Your task to perform on an android device: Go to privacy settings Image 0: 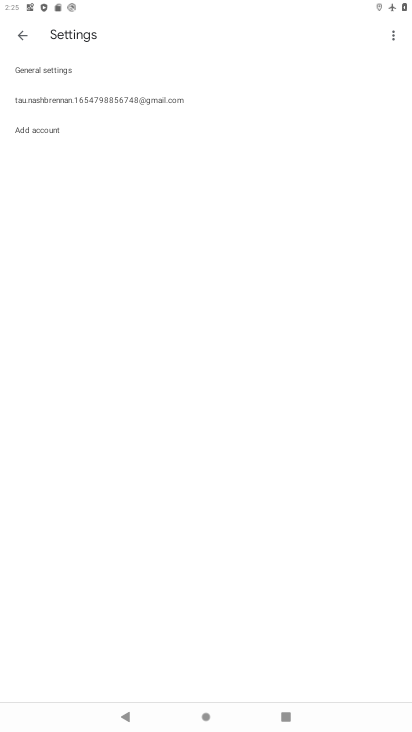
Step 0: press home button
Your task to perform on an android device: Go to privacy settings Image 1: 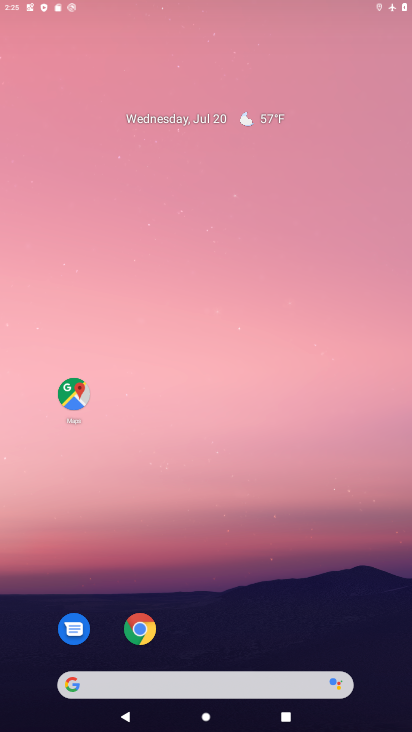
Step 1: drag from (251, 643) to (239, 205)
Your task to perform on an android device: Go to privacy settings Image 2: 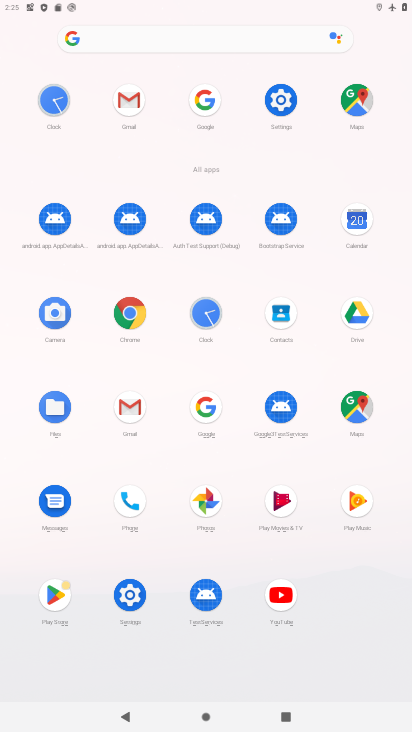
Step 2: click (284, 131)
Your task to perform on an android device: Go to privacy settings Image 3: 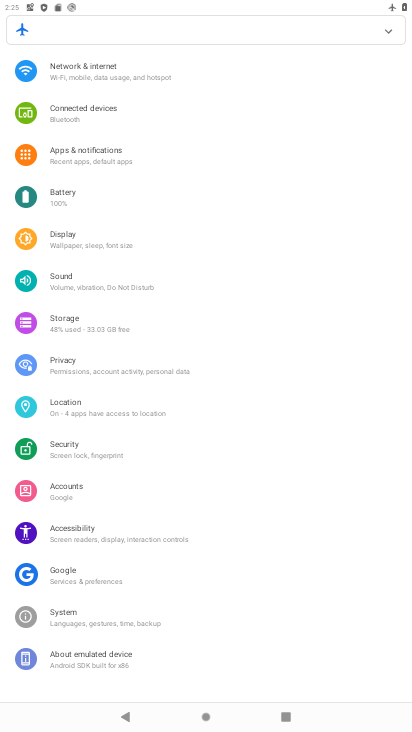
Step 3: click (67, 363)
Your task to perform on an android device: Go to privacy settings Image 4: 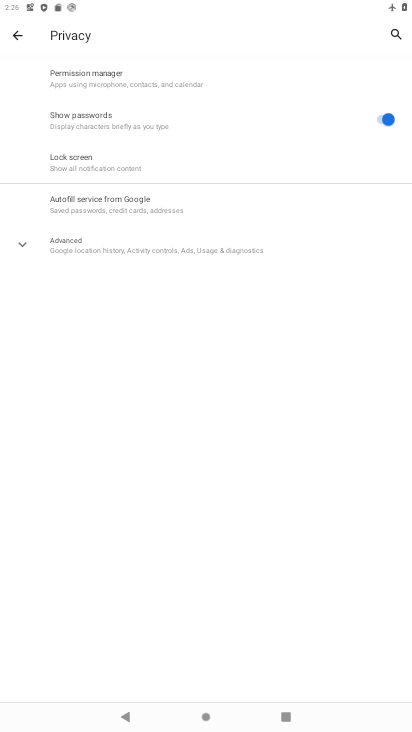
Step 4: task complete